Your task to perform on an android device: Go to wifi settings Image 0: 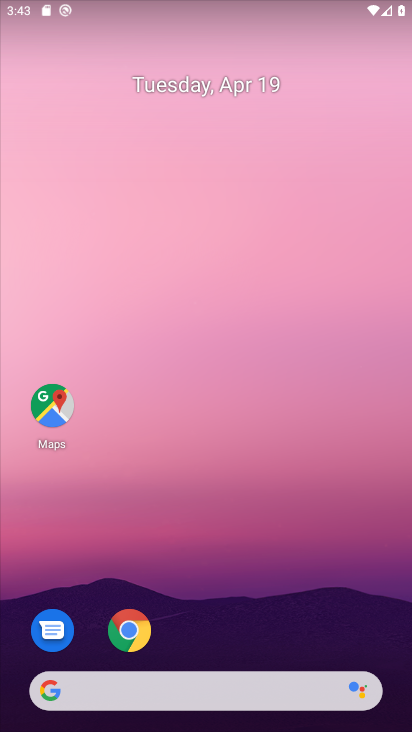
Step 0: drag from (311, 524) to (266, 142)
Your task to perform on an android device: Go to wifi settings Image 1: 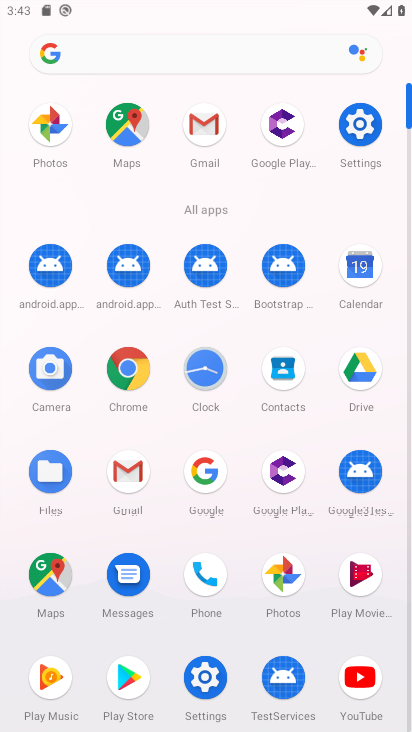
Step 1: click (356, 133)
Your task to perform on an android device: Go to wifi settings Image 2: 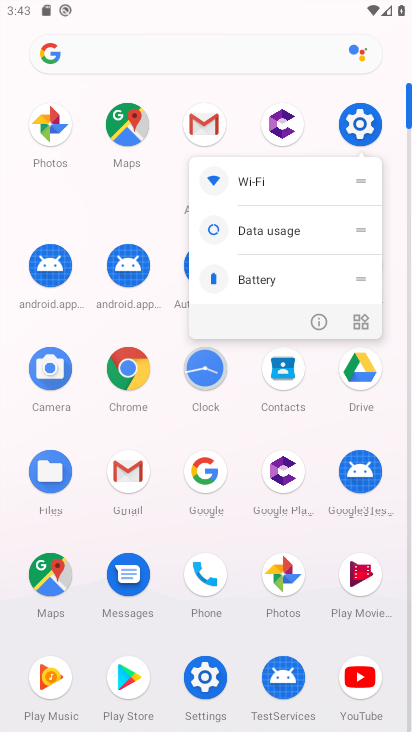
Step 2: click (367, 127)
Your task to perform on an android device: Go to wifi settings Image 3: 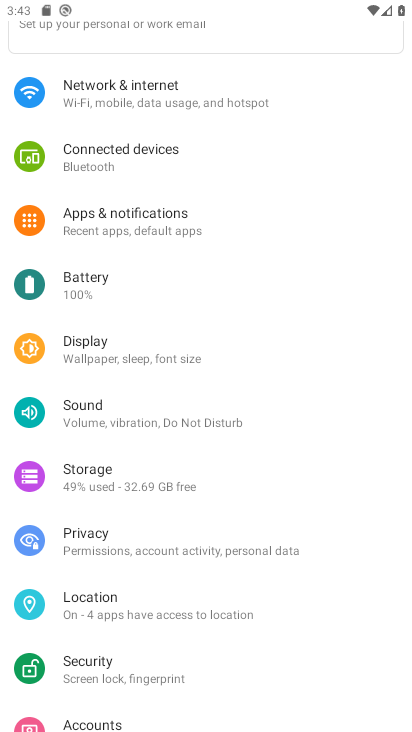
Step 3: click (181, 100)
Your task to perform on an android device: Go to wifi settings Image 4: 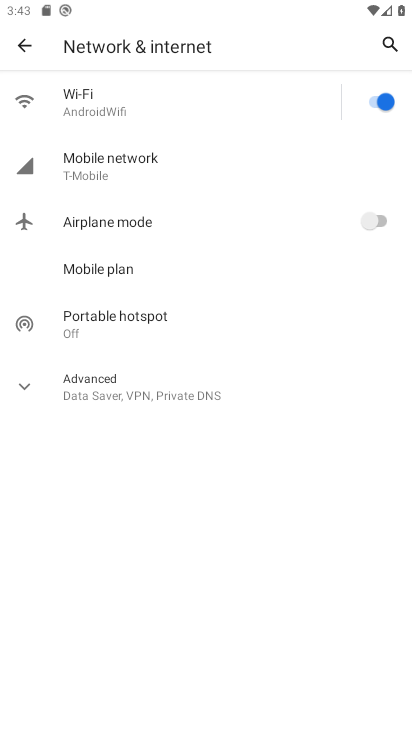
Step 4: click (154, 104)
Your task to perform on an android device: Go to wifi settings Image 5: 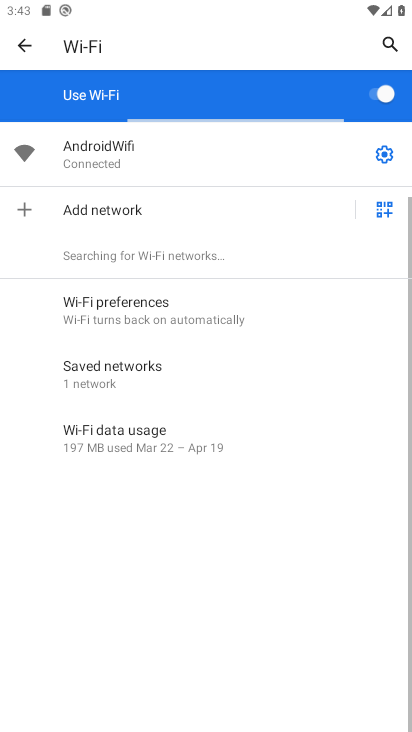
Step 5: task complete